Your task to perform on an android device: Open CNN.com Image 0: 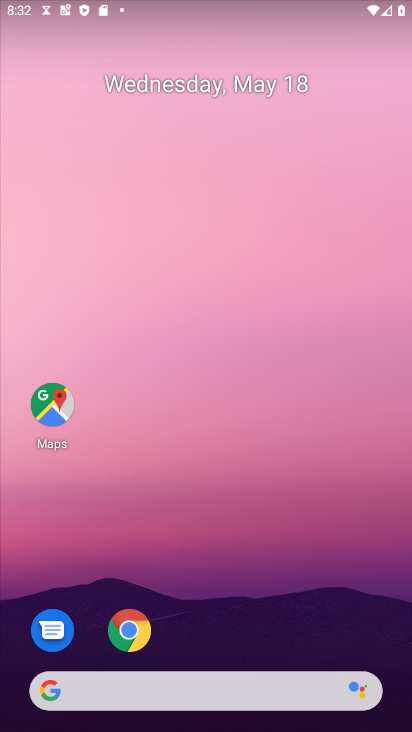
Step 0: click (137, 626)
Your task to perform on an android device: Open CNN.com Image 1: 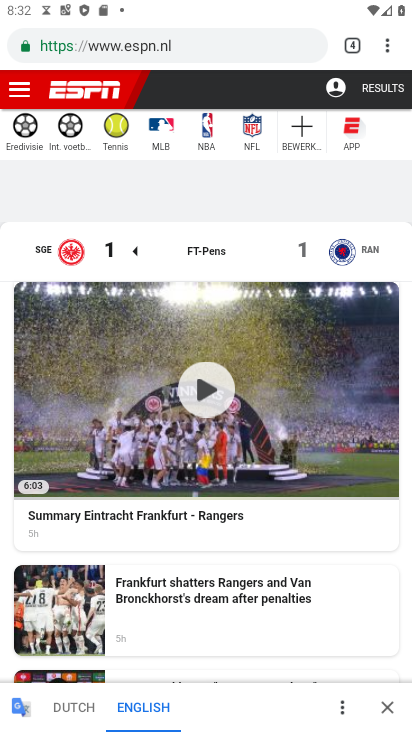
Step 1: drag from (389, 38) to (342, 84)
Your task to perform on an android device: Open CNN.com Image 2: 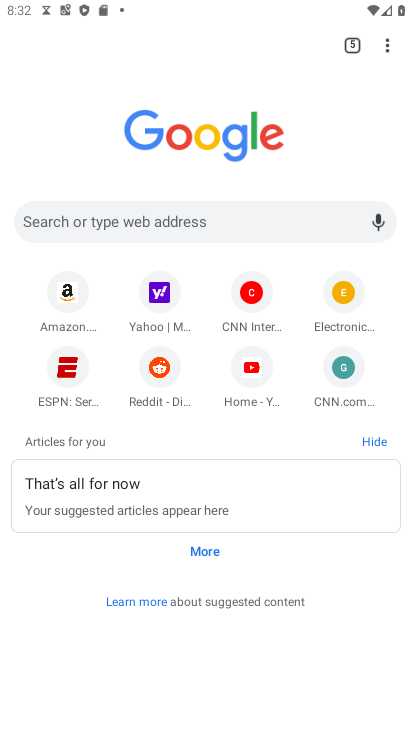
Step 2: click (346, 371)
Your task to perform on an android device: Open CNN.com Image 3: 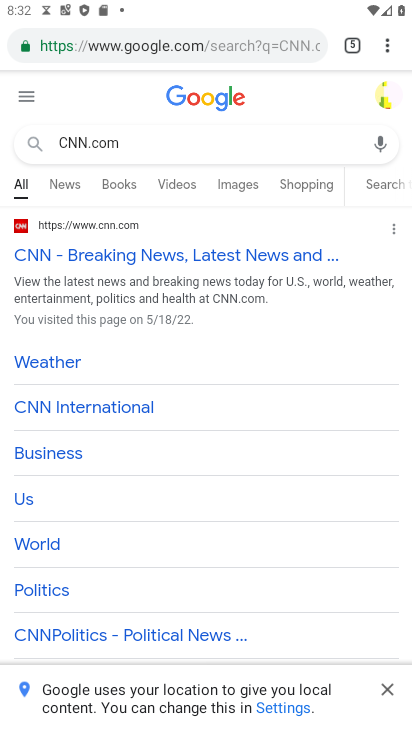
Step 3: click (176, 255)
Your task to perform on an android device: Open CNN.com Image 4: 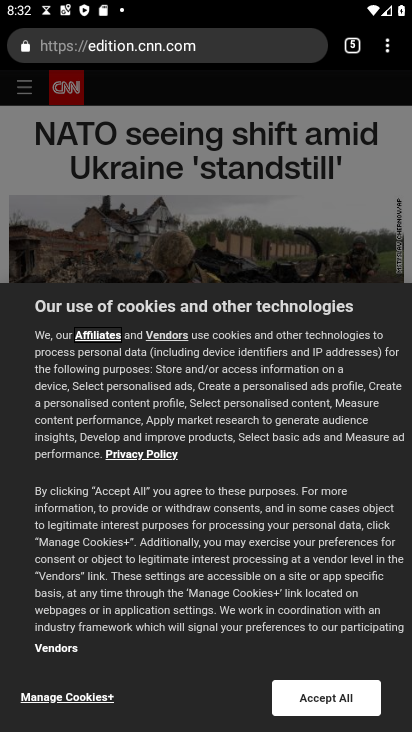
Step 4: click (318, 703)
Your task to perform on an android device: Open CNN.com Image 5: 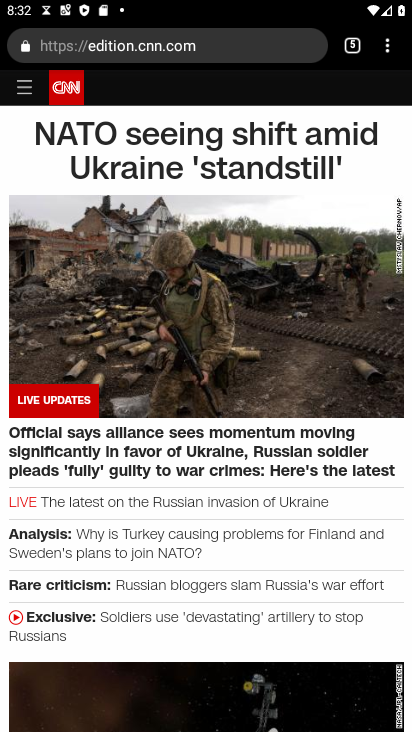
Step 5: task complete